Your task to perform on an android device: turn on location history Image 0: 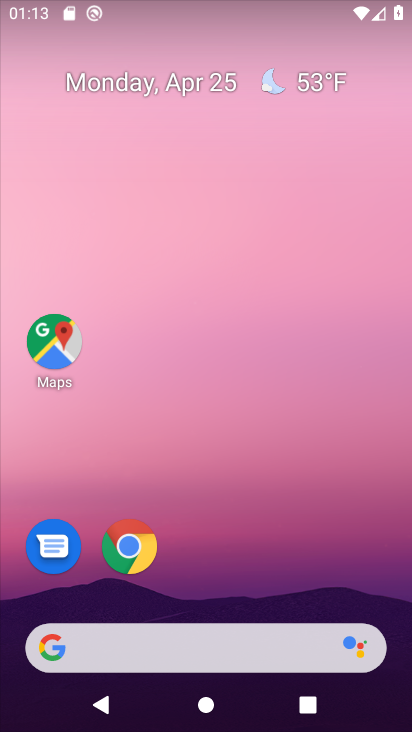
Step 0: drag from (305, 592) to (265, 42)
Your task to perform on an android device: turn on location history Image 1: 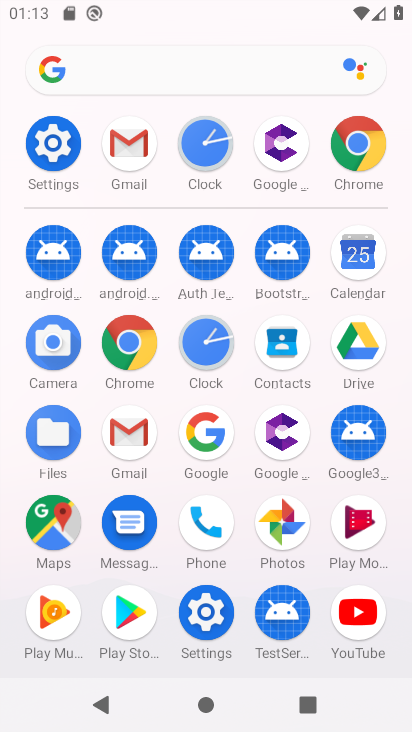
Step 1: click (196, 606)
Your task to perform on an android device: turn on location history Image 2: 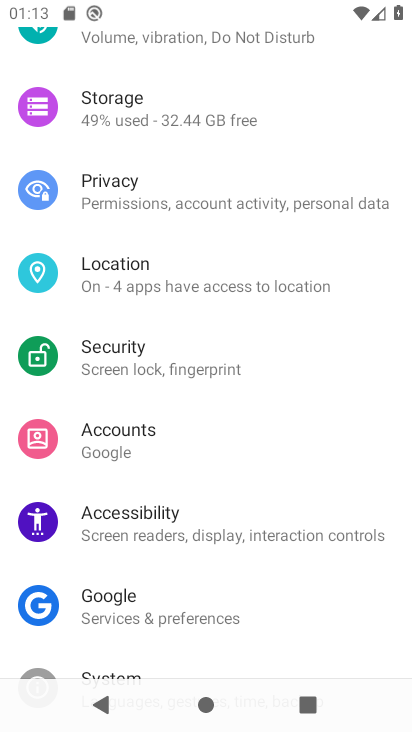
Step 2: drag from (189, 223) to (210, 458)
Your task to perform on an android device: turn on location history Image 3: 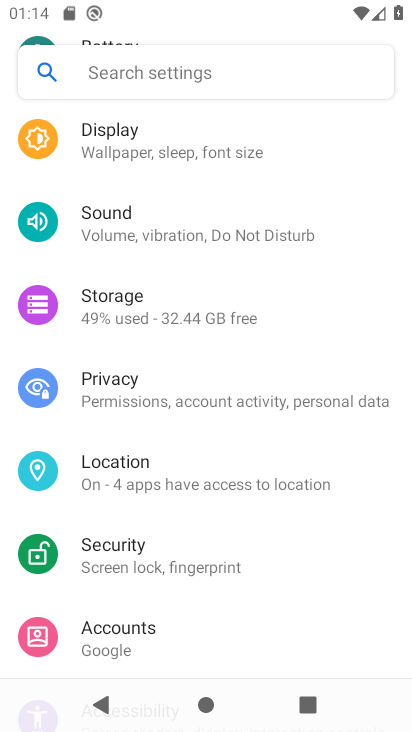
Step 3: drag from (194, 588) to (245, 682)
Your task to perform on an android device: turn on location history Image 4: 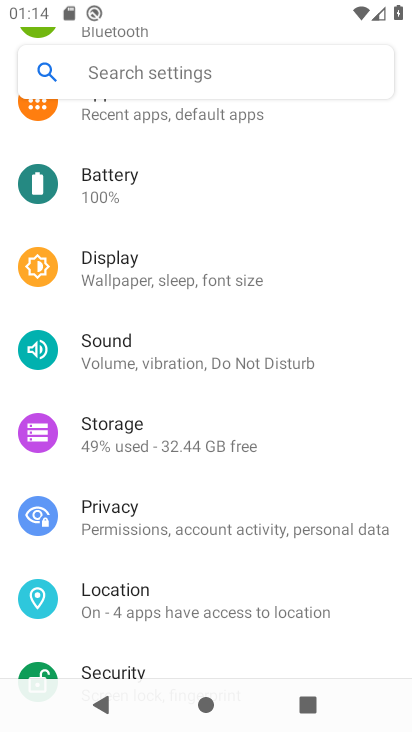
Step 4: drag from (230, 201) to (282, 576)
Your task to perform on an android device: turn on location history Image 5: 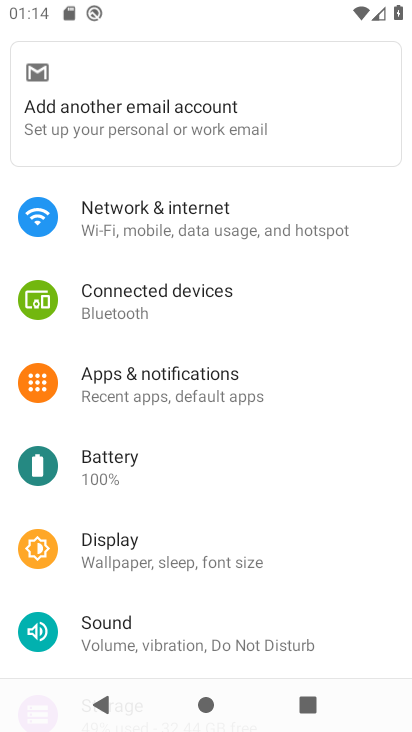
Step 5: drag from (212, 493) to (367, 328)
Your task to perform on an android device: turn on location history Image 6: 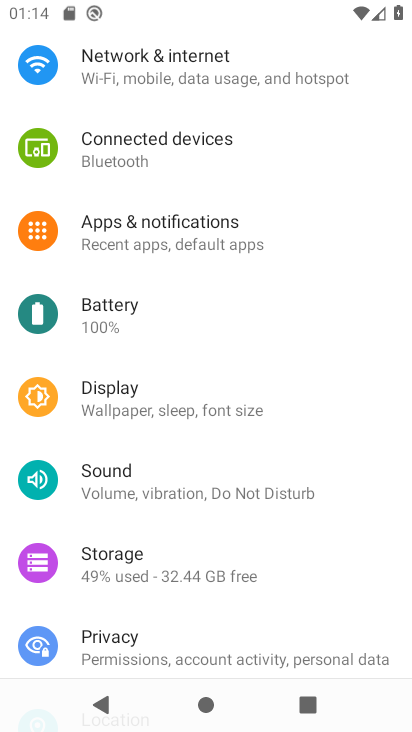
Step 6: press home button
Your task to perform on an android device: turn on location history Image 7: 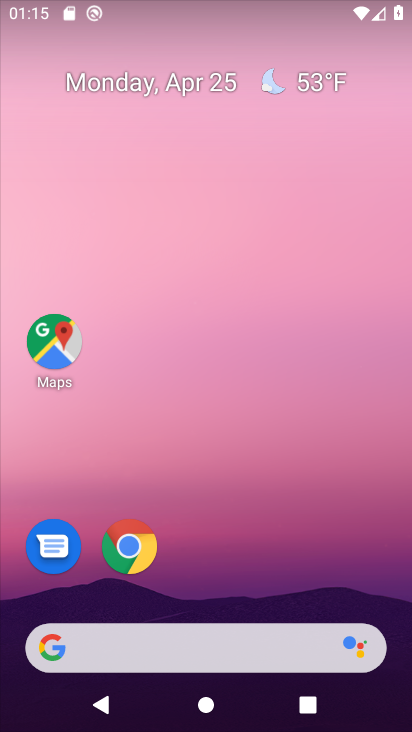
Step 7: drag from (255, 468) to (237, 83)
Your task to perform on an android device: turn on location history Image 8: 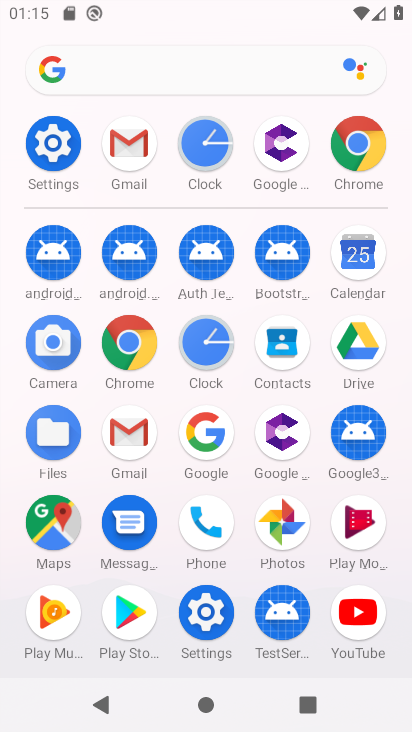
Step 8: click (46, 510)
Your task to perform on an android device: turn on location history Image 9: 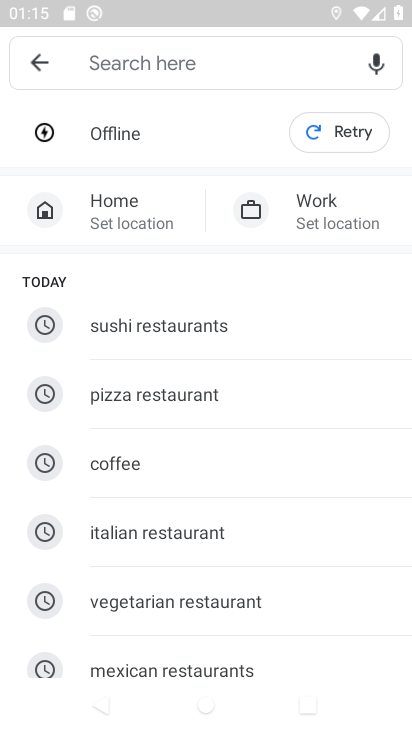
Step 9: click (47, 69)
Your task to perform on an android device: turn on location history Image 10: 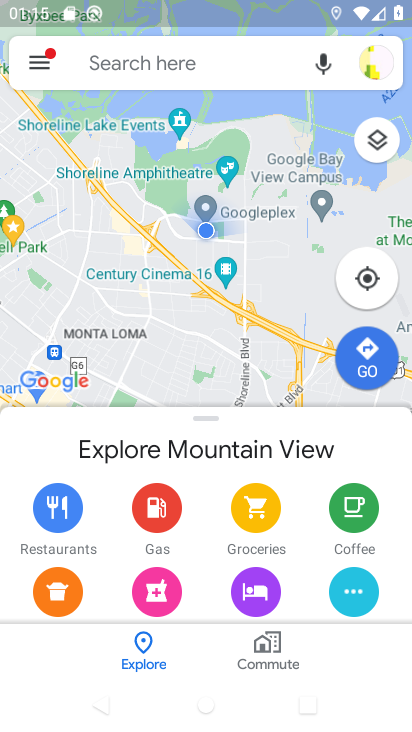
Step 10: click (47, 69)
Your task to perform on an android device: turn on location history Image 11: 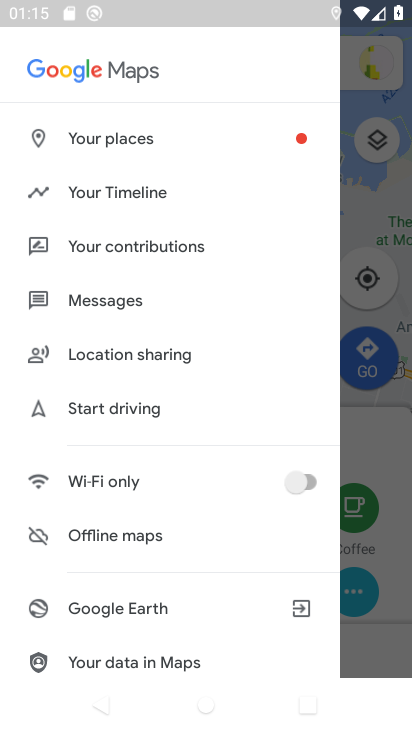
Step 11: click (171, 186)
Your task to perform on an android device: turn on location history Image 12: 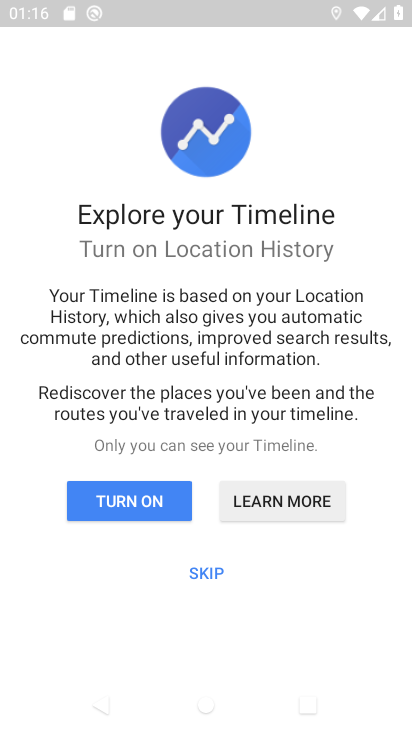
Step 12: click (161, 497)
Your task to perform on an android device: turn on location history Image 13: 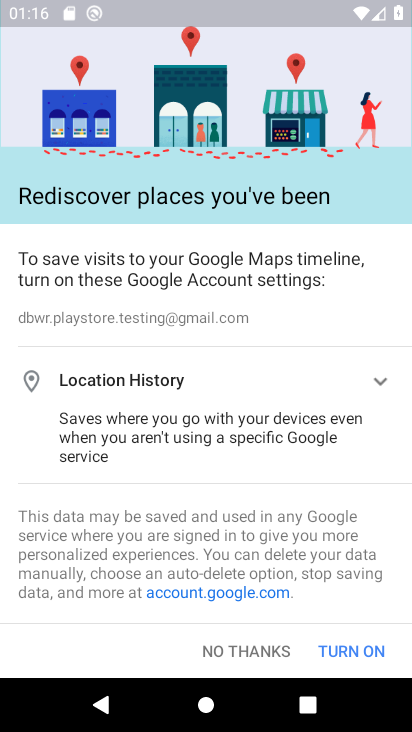
Step 13: click (350, 648)
Your task to perform on an android device: turn on location history Image 14: 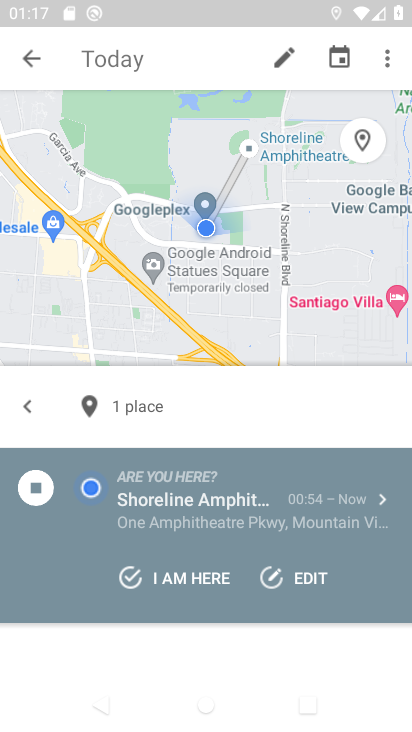
Step 14: task complete